Your task to perform on an android device: star an email in the gmail app Image 0: 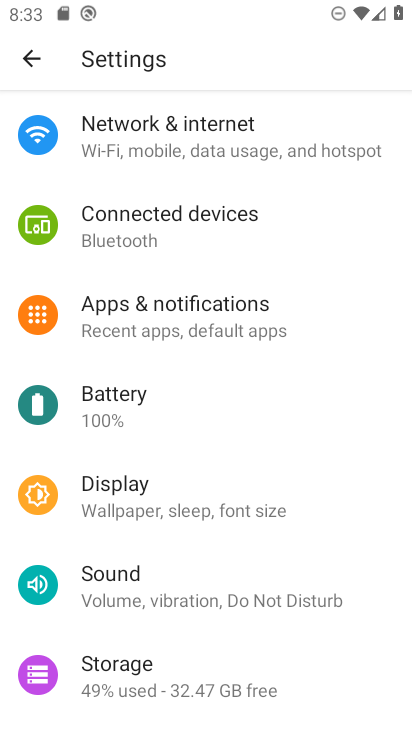
Step 0: press back button
Your task to perform on an android device: star an email in the gmail app Image 1: 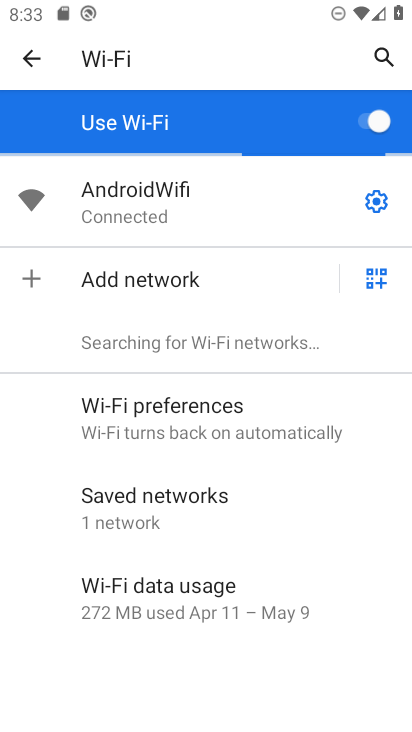
Step 1: press home button
Your task to perform on an android device: star an email in the gmail app Image 2: 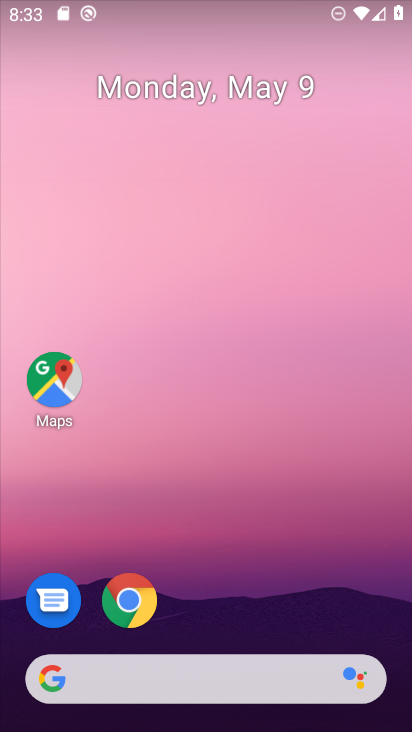
Step 2: drag from (227, 586) to (253, 62)
Your task to perform on an android device: star an email in the gmail app Image 3: 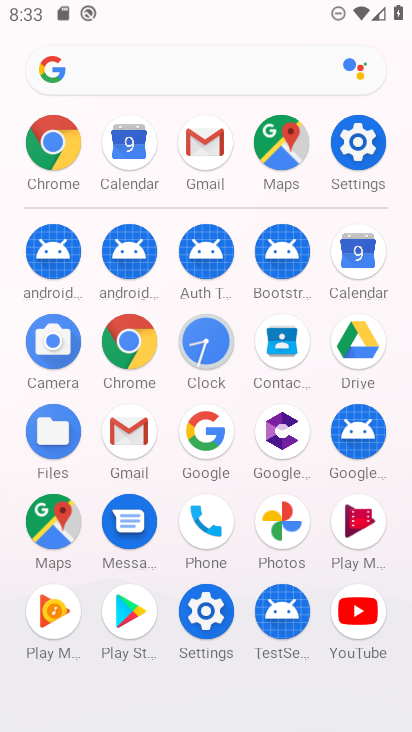
Step 3: click (128, 424)
Your task to perform on an android device: star an email in the gmail app Image 4: 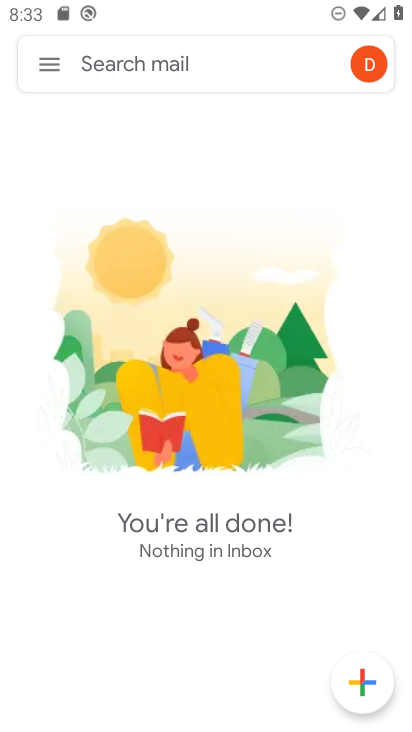
Step 4: click (50, 54)
Your task to perform on an android device: star an email in the gmail app Image 5: 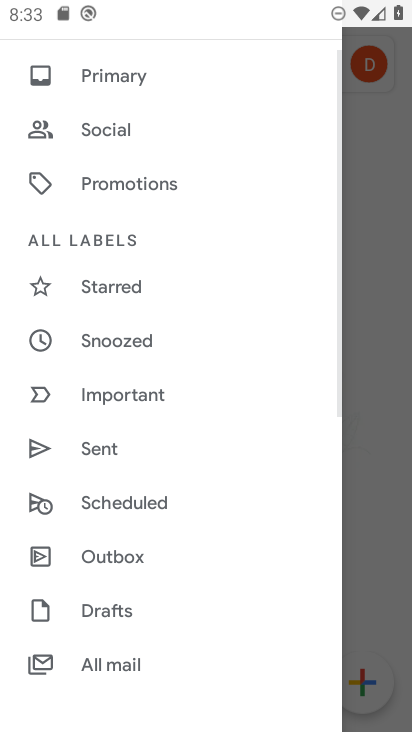
Step 5: drag from (180, 273) to (199, 620)
Your task to perform on an android device: star an email in the gmail app Image 6: 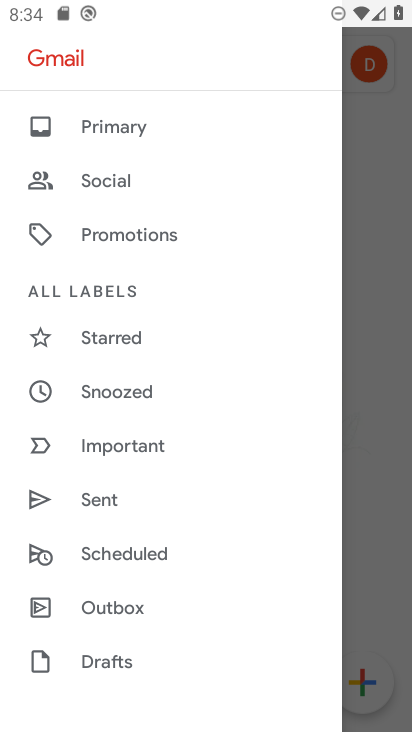
Step 6: click (132, 336)
Your task to perform on an android device: star an email in the gmail app Image 7: 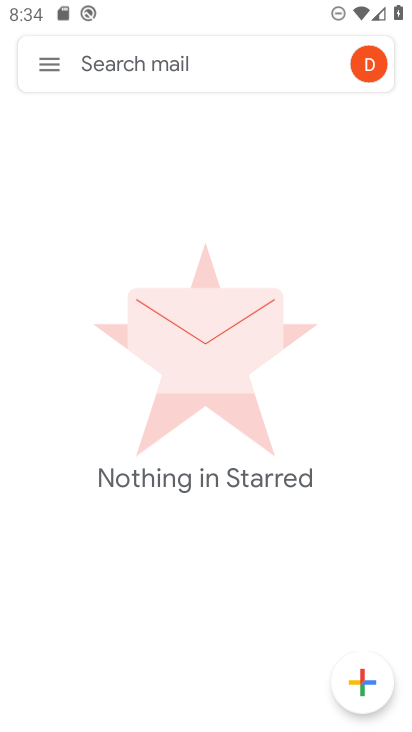
Step 7: task complete